Your task to perform on an android device: search for starred emails in the gmail app Image 0: 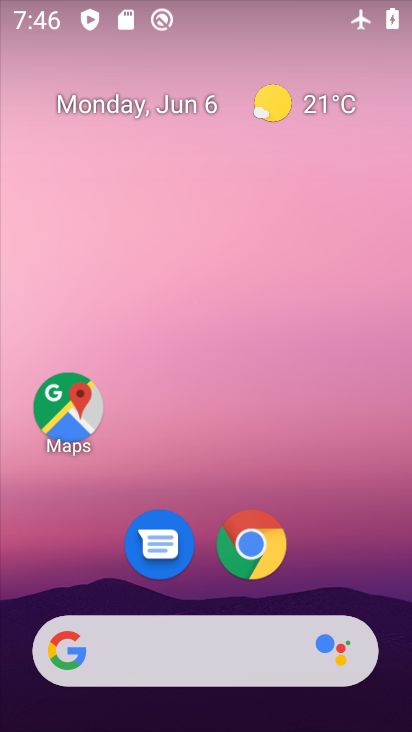
Step 0: drag from (310, 536) to (324, 339)
Your task to perform on an android device: search for starred emails in the gmail app Image 1: 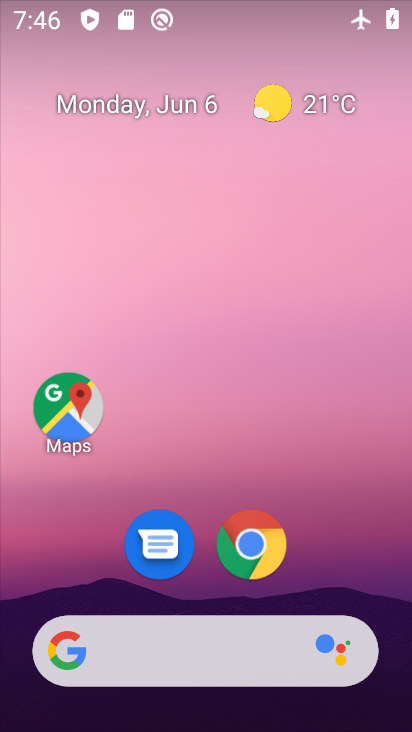
Step 1: drag from (292, 547) to (268, 200)
Your task to perform on an android device: search for starred emails in the gmail app Image 2: 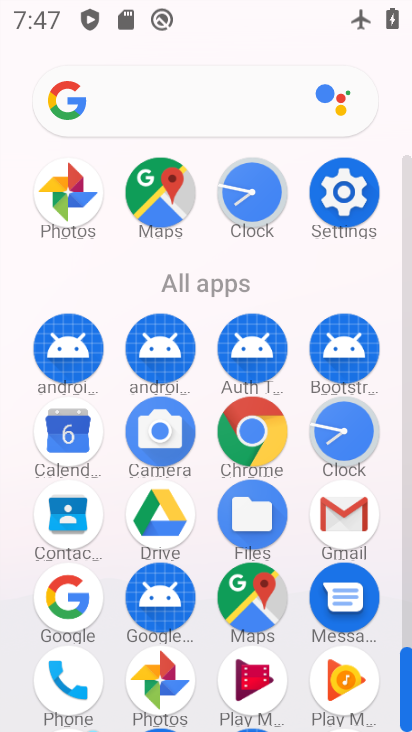
Step 2: click (325, 504)
Your task to perform on an android device: search for starred emails in the gmail app Image 3: 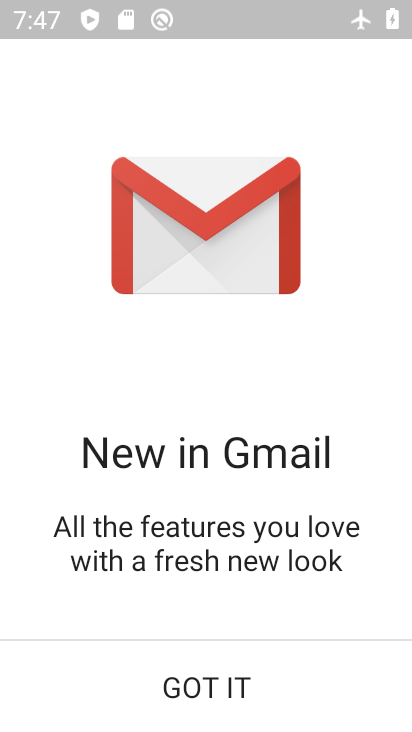
Step 3: click (224, 681)
Your task to perform on an android device: search for starred emails in the gmail app Image 4: 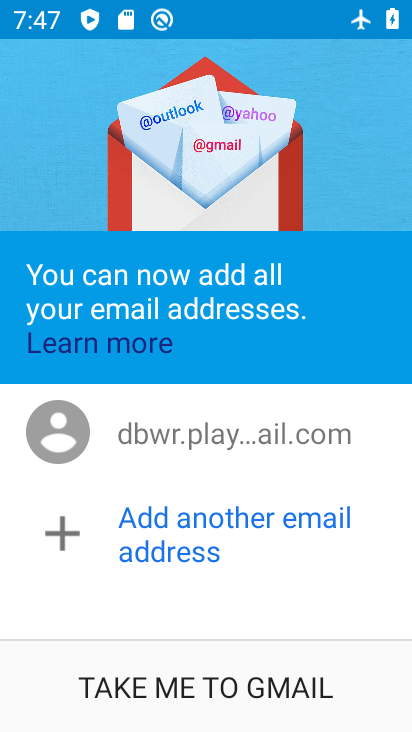
Step 4: click (224, 681)
Your task to perform on an android device: search for starred emails in the gmail app Image 5: 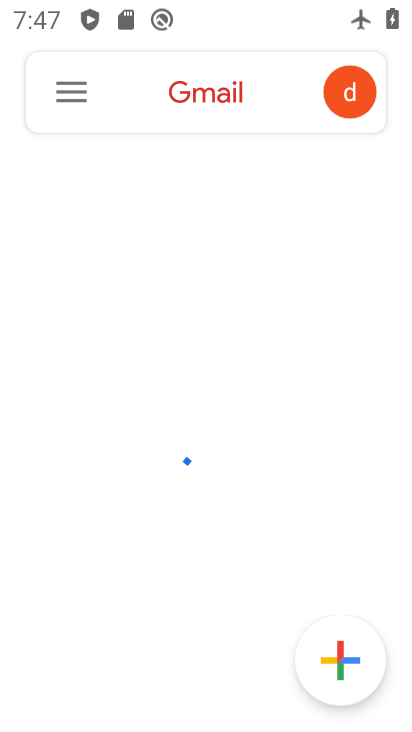
Step 5: click (75, 83)
Your task to perform on an android device: search for starred emails in the gmail app Image 6: 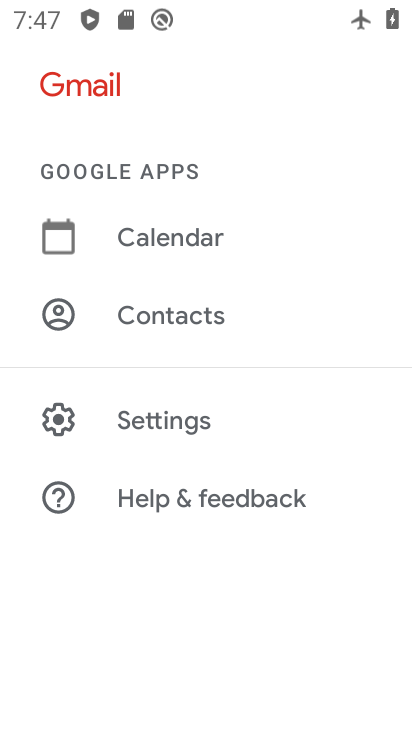
Step 6: drag from (202, 199) to (199, 604)
Your task to perform on an android device: search for starred emails in the gmail app Image 7: 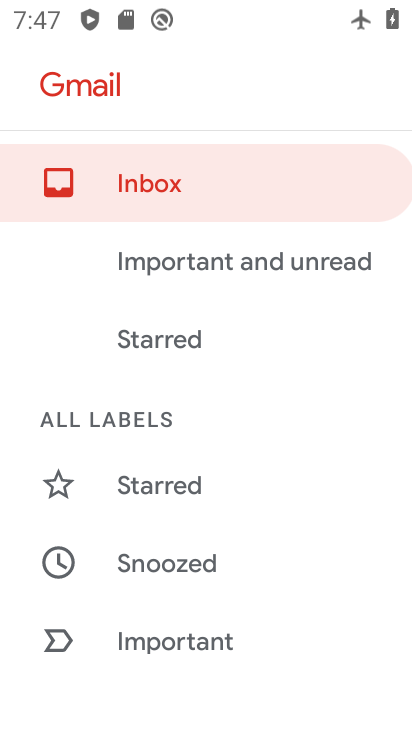
Step 7: click (172, 498)
Your task to perform on an android device: search for starred emails in the gmail app Image 8: 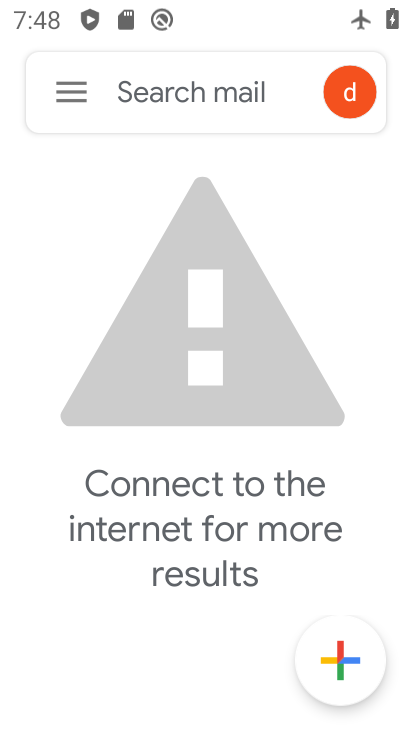
Step 8: click (70, 84)
Your task to perform on an android device: search for starred emails in the gmail app Image 9: 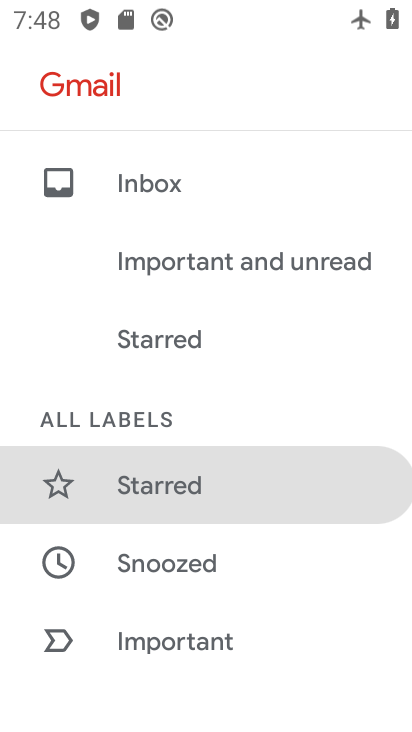
Step 9: task complete